Your task to perform on an android device: Open Google Image 0: 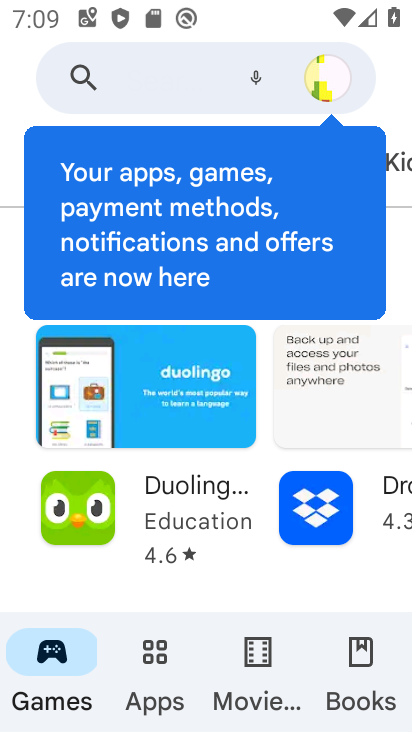
Step 0: press home button
Your task to perform on an android device: Open Google Image 1: 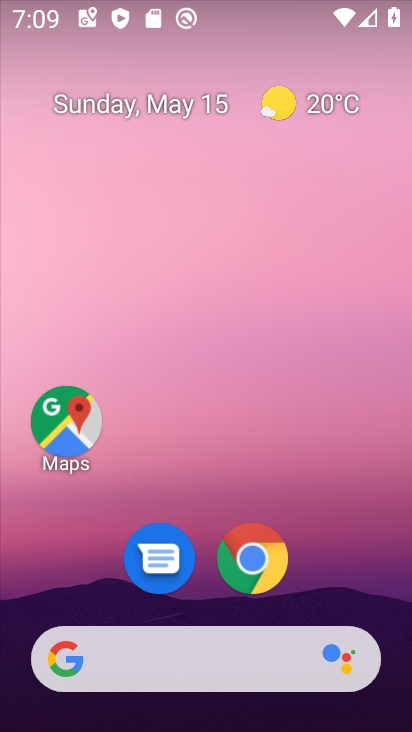
Step 1: click (63, 666)
Your task to perform on an android device: Open Google Image 2: 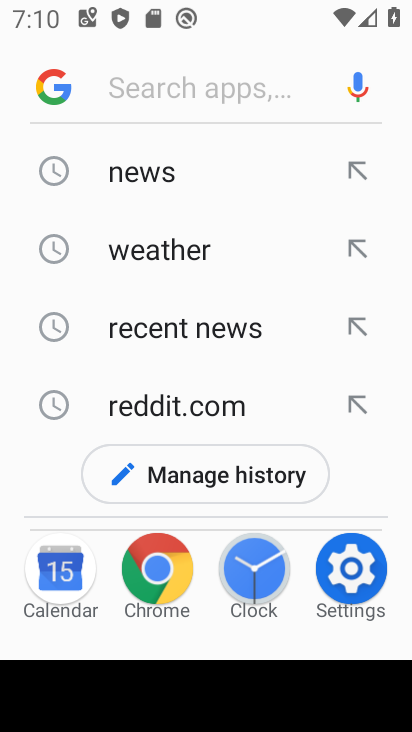
Step 2: task complete